Your task to perform on an android device: turn on priority inbox in the gmail app Image 0: 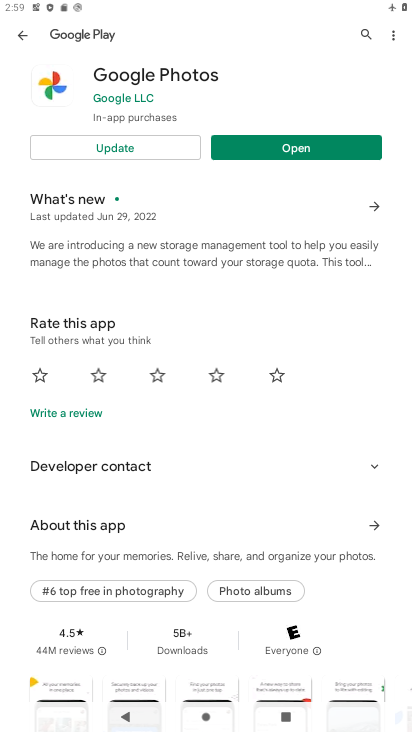
Step 0: press home button
Your task to perform on an android device: turn on priority inbox in the gmail app Image 1: 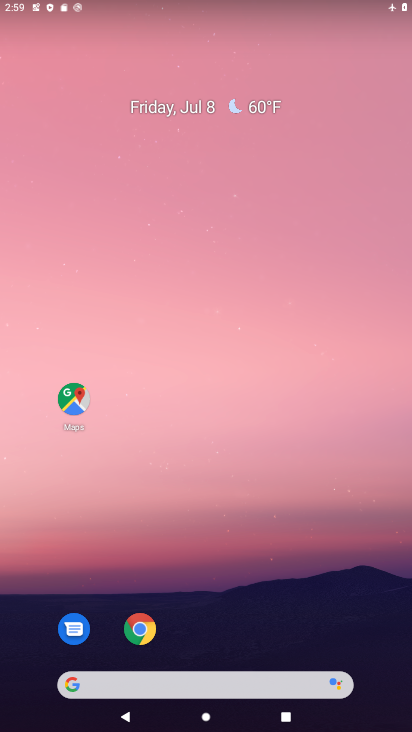
Step 1: drag from (206, 624) to (214, 204)
Your task to perform on an android device: turn on priority inbox in the gmail app Image 2: 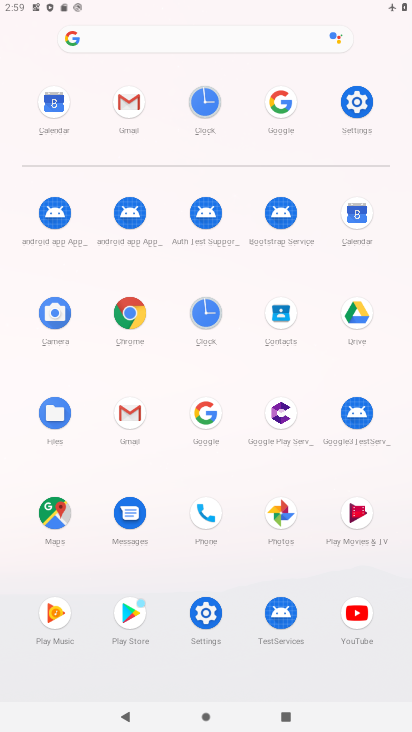
Step 2: click (114, 112)
Your task to perform on an android device: turn on priority inbox in the gmail app Image 3: 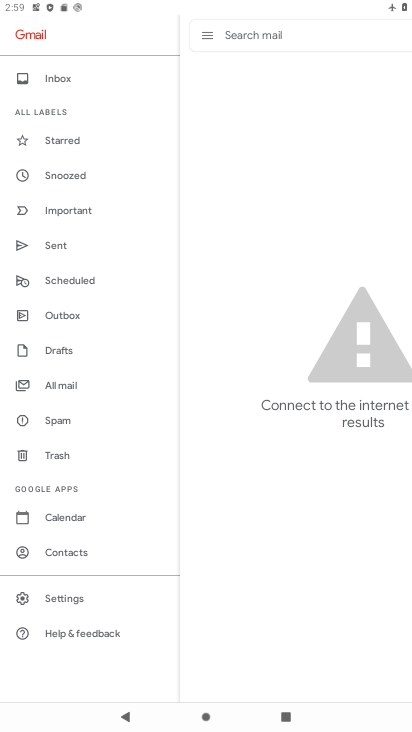
Step 3: click (74, 595)
Your task to perform on an android device: turn on priority inbox in the gmail app Image 4: 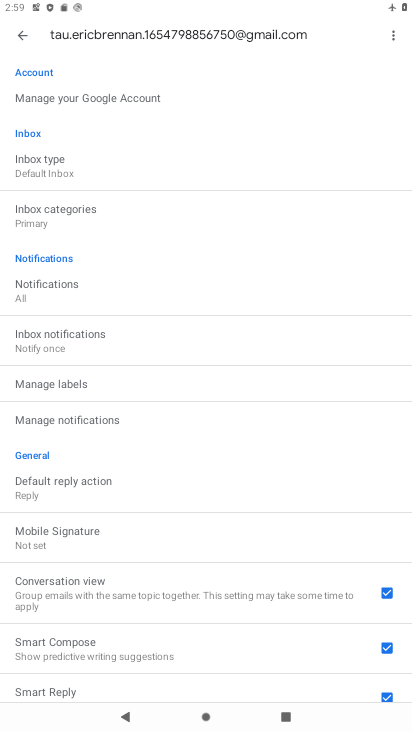
Step 4: drag from (126, 471) to (142, 333)
Your task to perform on an android device: turn on priority inbox in the gmail app Image 5: 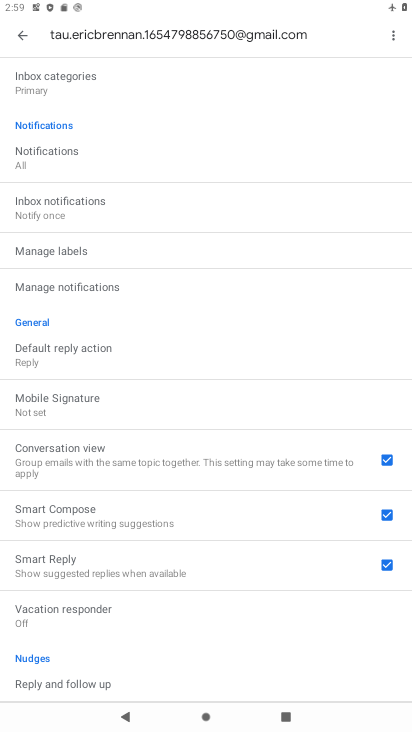
Step 5: click (81, 94)
Your task to perform on an android device: turn on priority inbox in the gmail app Image 6: 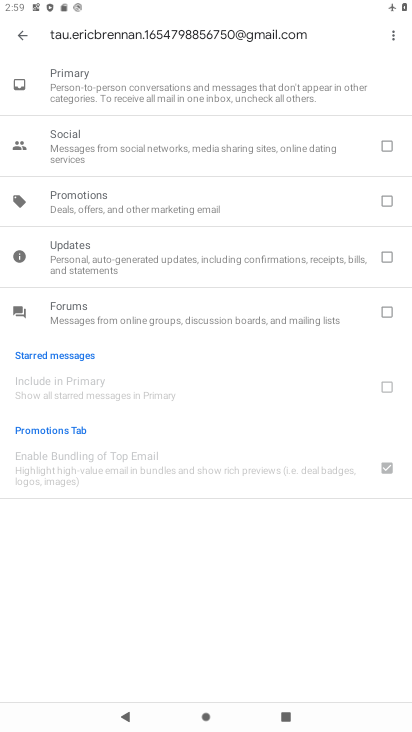
Step 6: click (23, 26)
Your task to perform on an android device: turn on priority inbox in the gmail app Image 7: 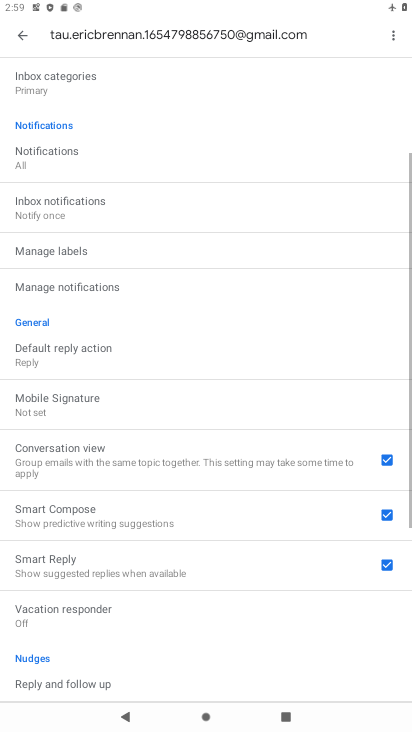
Step 7: drag from (116, 157) to (125, 380)
Your task to perform on an android device: turn on priority inbox in the gmail app Image 8: 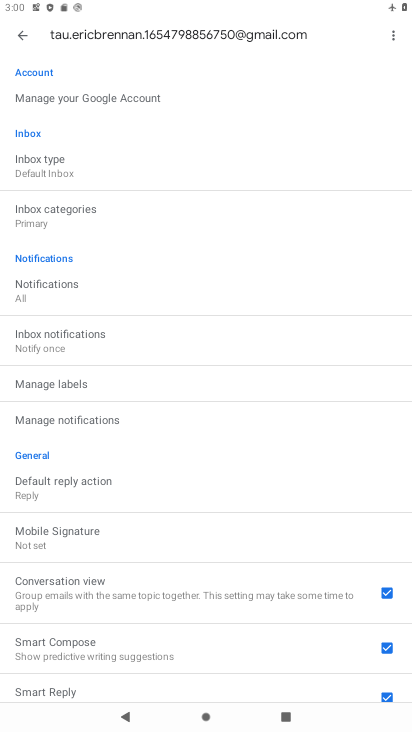
Step 8: click (83, 163)
Your task to perform on an android device: turn on priority inbox in the gmail app Image 9: 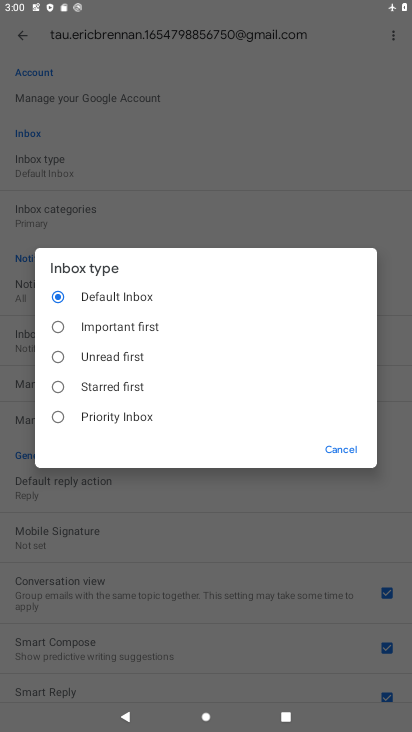
Step 9: click (128, 413)
Your task to perform on an android device: turn on priority inbox in the gmail app Image 10: 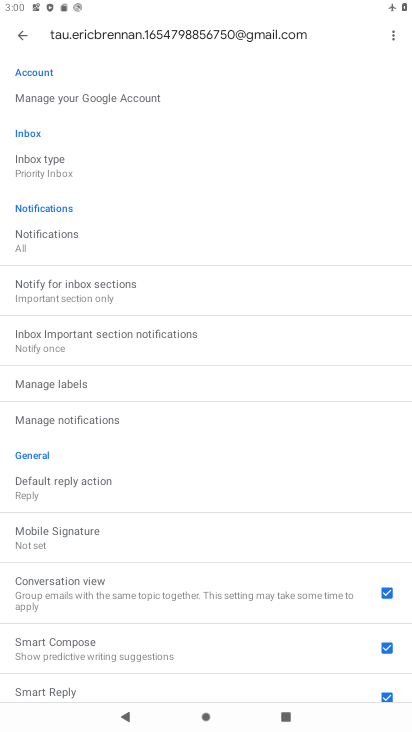
Step 10: task complete